Your task to perform on an android device: Go to accessibility settings Image 0: 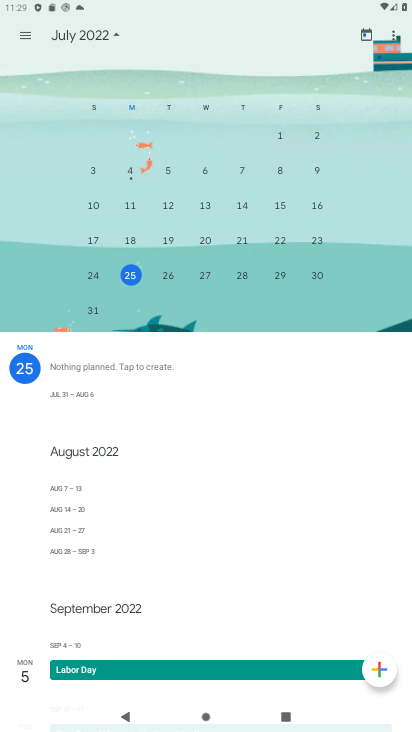
Step 0: press home button
Your task to perform on an android device: Go to accessibility settings Image 1: 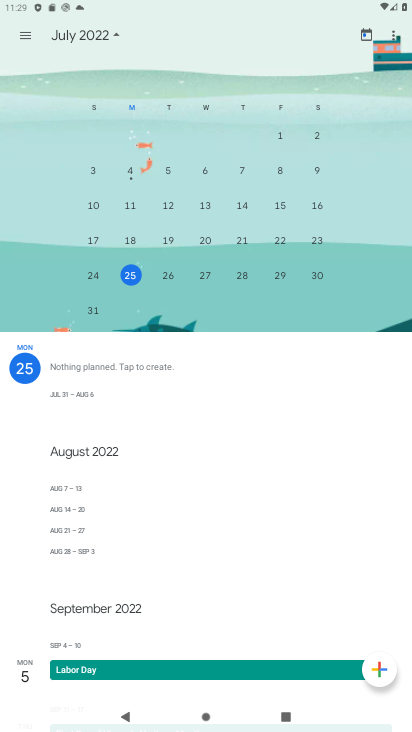
Step 1: press home button
Your task to perform on an android device: Go to accessibility settings Image 2: 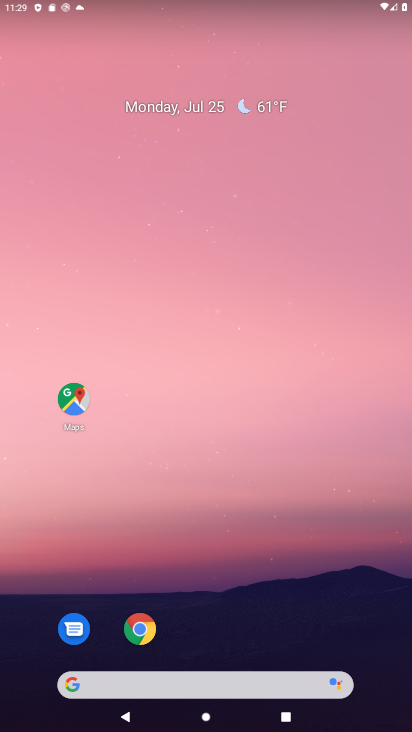
Step 2: drag from (204, 608) to (311, 19)
Your task to perform on an android device: Go to accessibility settings Image 3: 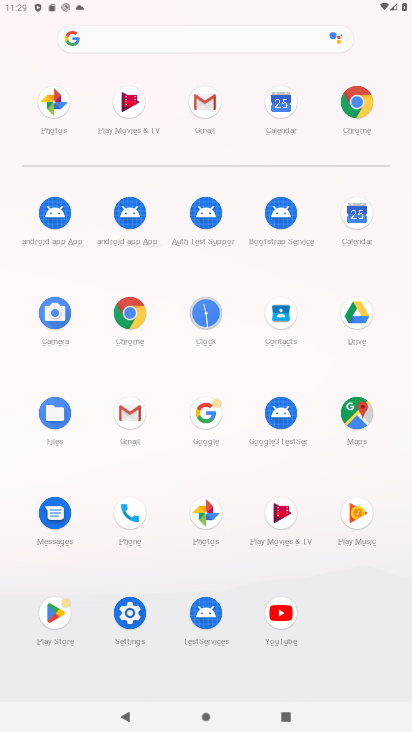
Step 3: click (120, 615)
Your task to perform on an android device: Go to accessibility settings Image 4: 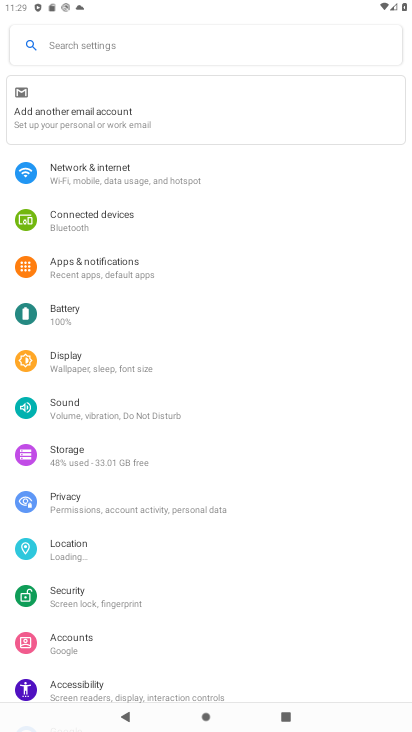
Step 4: click (110, 682)
Your task to perform on an android device: Go to accessibility settings Image 5: 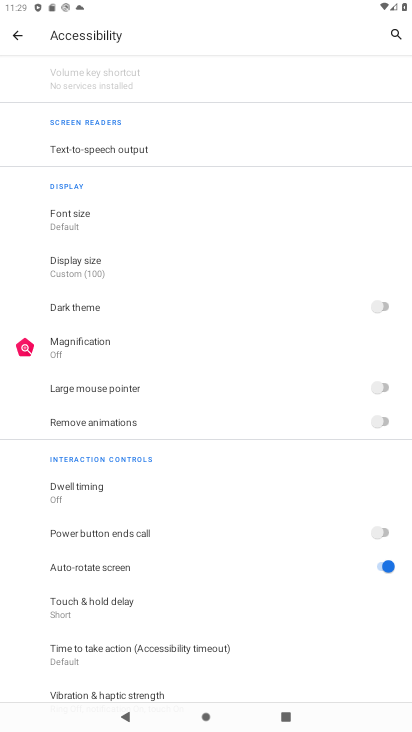
Step 5: task complete